Your task to perform on an android device: change notification settings in the gmail app Image 0: 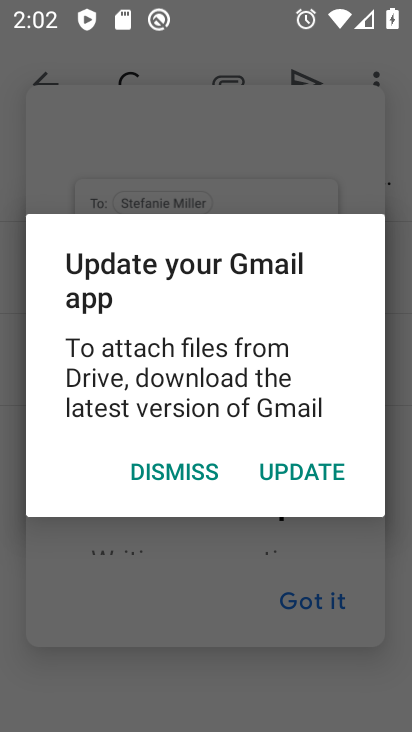
Step 0: press home button
Your task to perform on an android device: change notification settings in the gmail app Image 1: 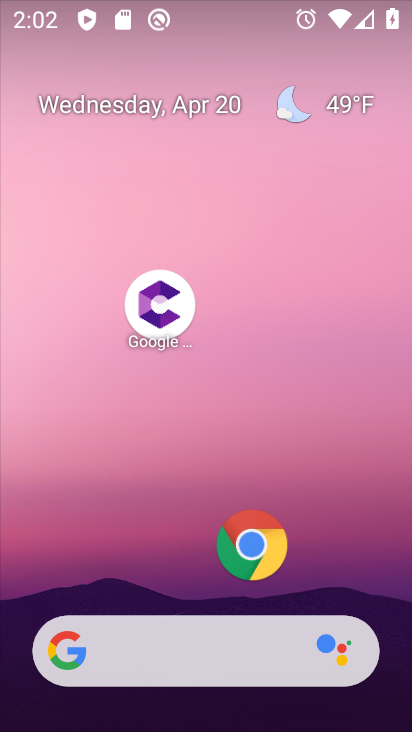
Step 1: drag from (176, 563) to (231, 32)
Your task to perform on an android device: change notification settings in the gmail app Image 2: 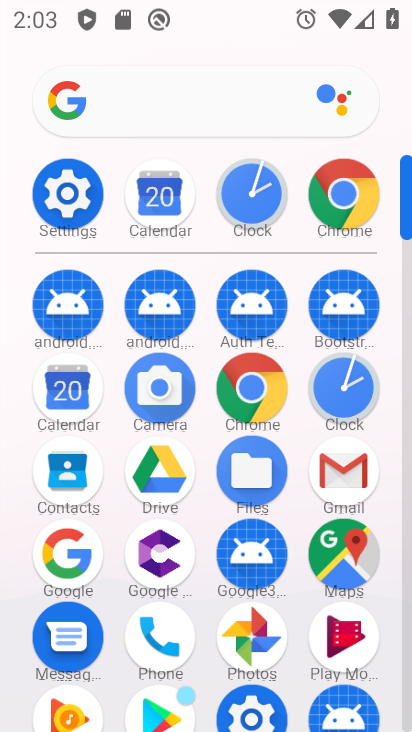
Step 2: click (348, 473)
Your task to perform on an android device: change notification settings in the gmail app Image 3: 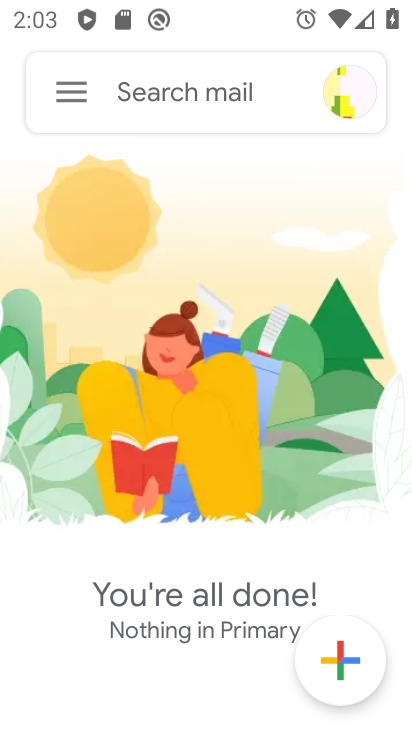
Step 3: click (75, 94)
Your task to perform on an android device: change notification settings in the gmail app Image 4: 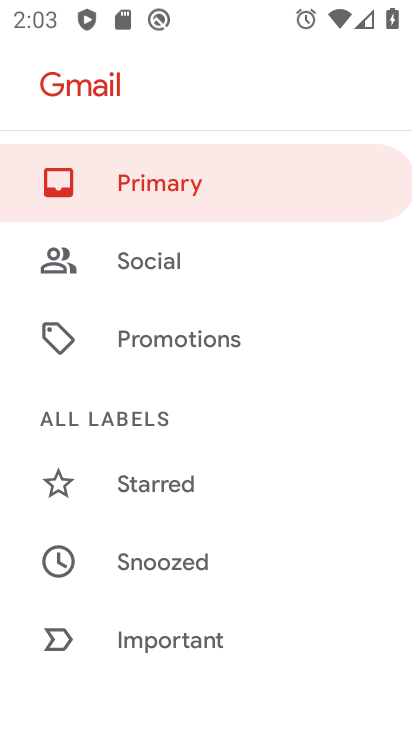
Step 4: drag from (201, 603) to (270, 300)
Your task to perform on an android device: change notification settings in the gmail app Image 5: 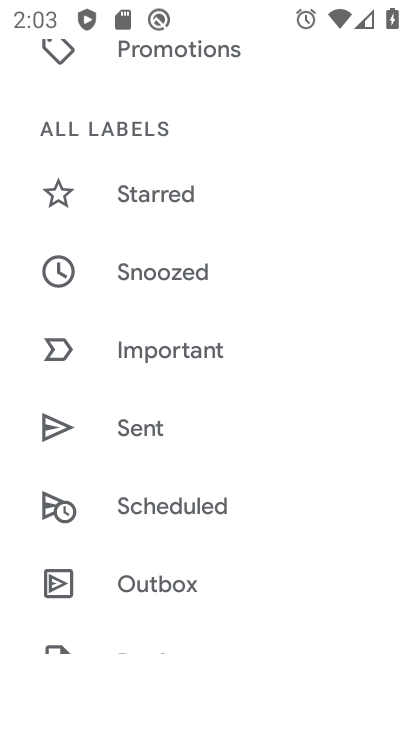
Step 5: drag from (194, 560) to (256, 330)
Your task to perform on an android device: change notification settings in the gmail app Image 6: 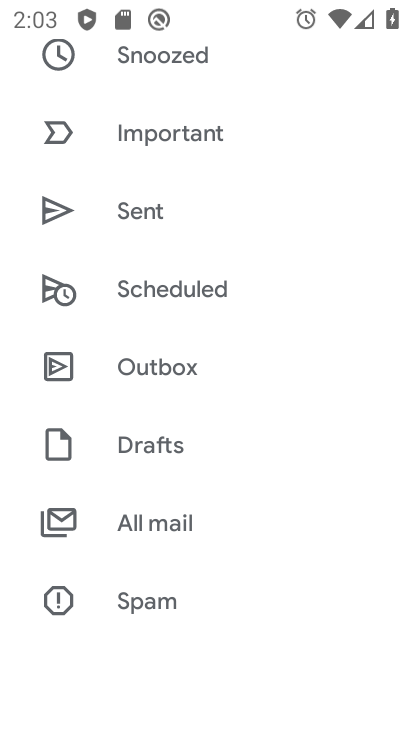
Step 6: drag from (198, 485) to (222, 381)
Your task to perform on an android device: change notification settings in the gmail app Image 7: 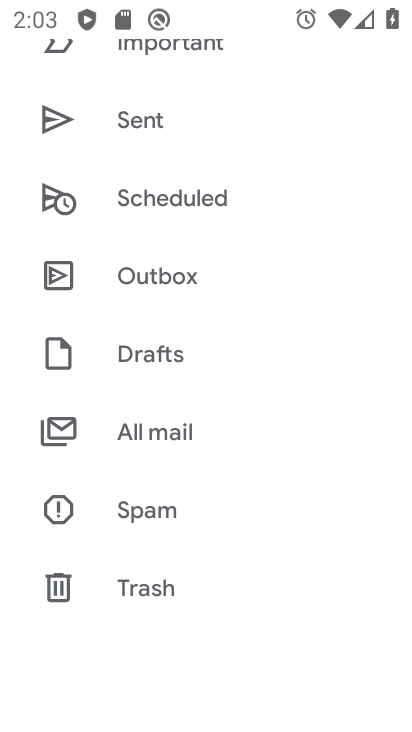
Step 7: drag from (181, 471) to (228, 341)
Your task to perform on an android device: change notification settings in the gmail app Image 8: 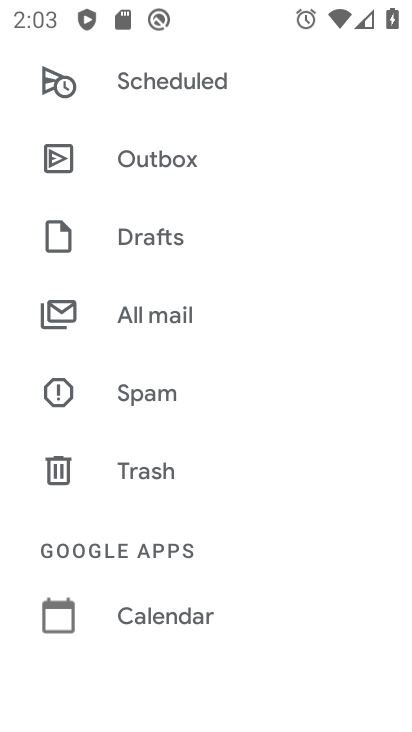
Step 8: drag from (184, 452) to (226, 356)
Your task to perform on an android device: change notification settings in the gmail app Image 9: 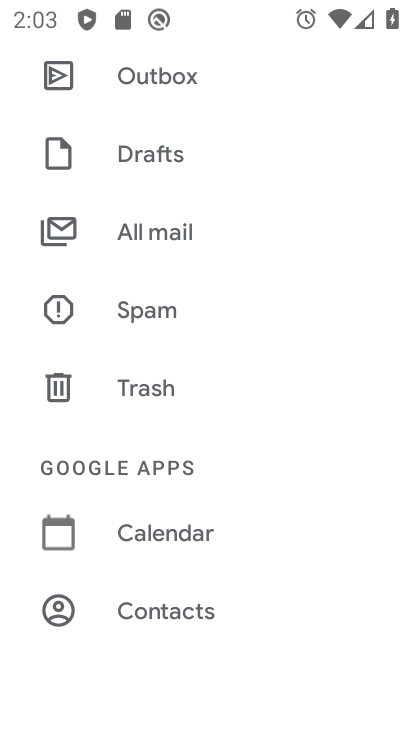
Step 9: drag from (208, 569) to (263, 401)
Your task to perform on an android device: change notification settings in the gmail app Image 10: 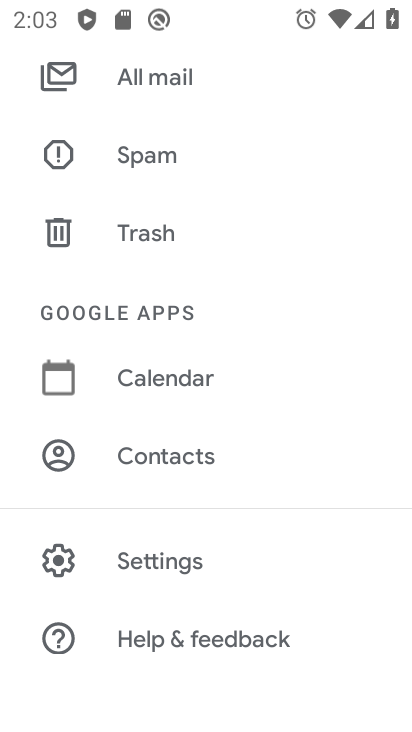
Step 10: click (178, 562)
Your task to perform on an android device: change notification settings in the gmail app Image 11: 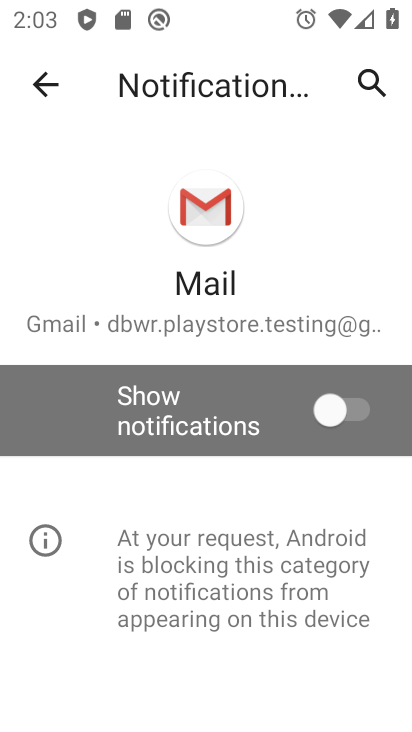
Step 11: click (331, 398)
Your task to perform on an android device: change notification settings in the gmail app Image 12: 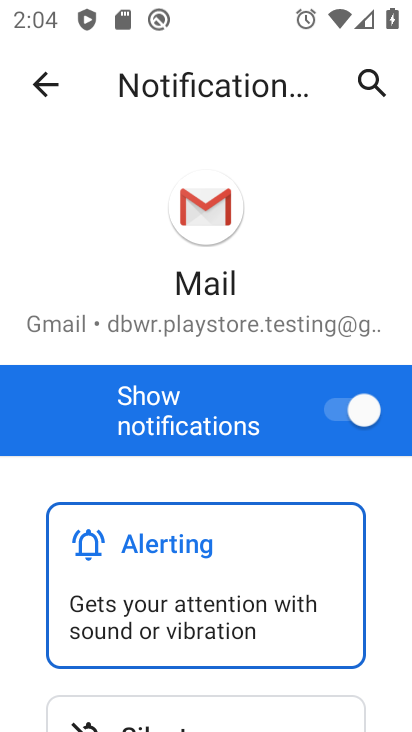
Step 12: task complete